Your task to perform on an android device: turn off smart reply in the gmail app Image 0: 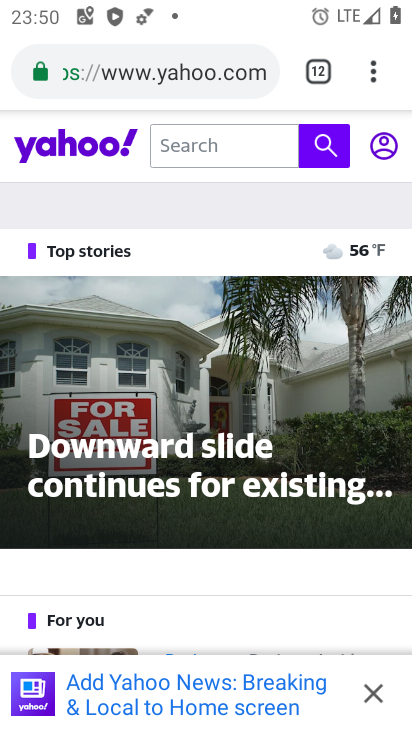
Step 0: press home button
Your task to perform on an android device: turn off smart reply in the gmail app Image 1: 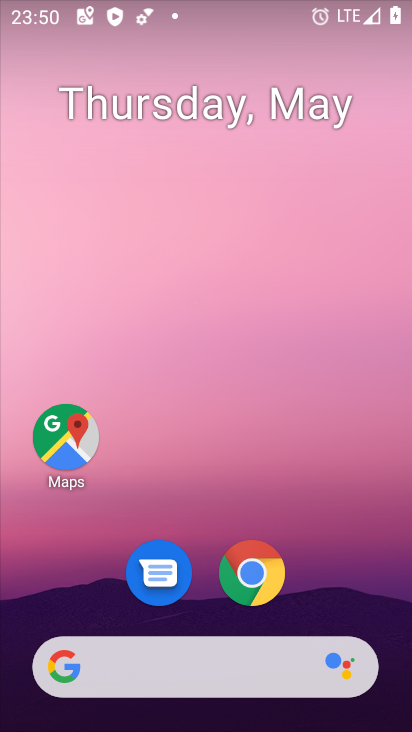
Step 1: drag from (220, 616) to (194, 237)
Your task to perform on an android device: turn off smart reply in the gmail app Image 2: 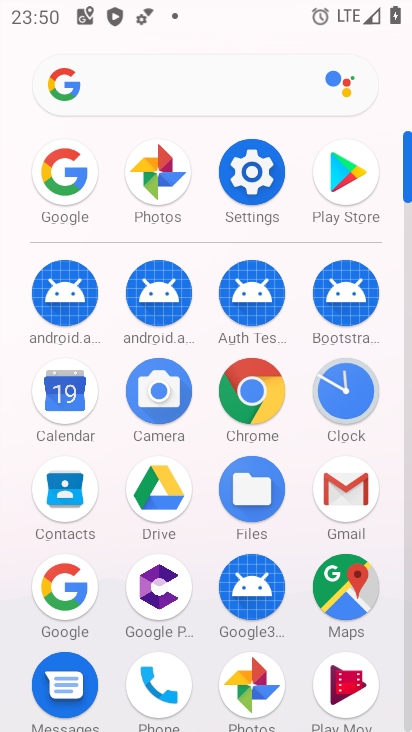
Step 2: click (358, 475)
Your task to perform on an android device: turn off smart reply in the gmail app Image 3: 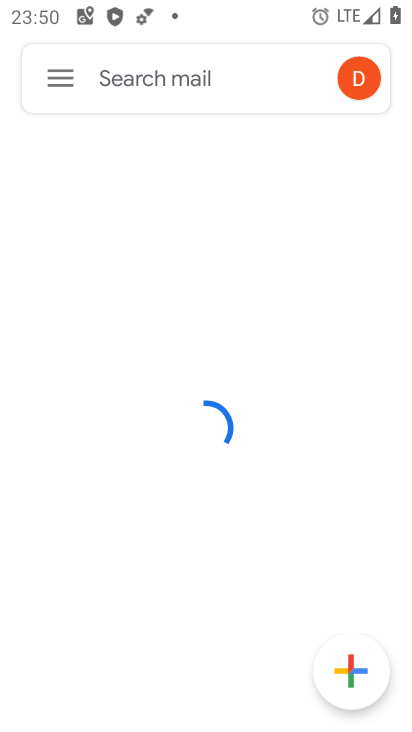
Step 3: click (56, 82)
Your task to perform on an android device: turn off smart reply in the gmail app Image 4: 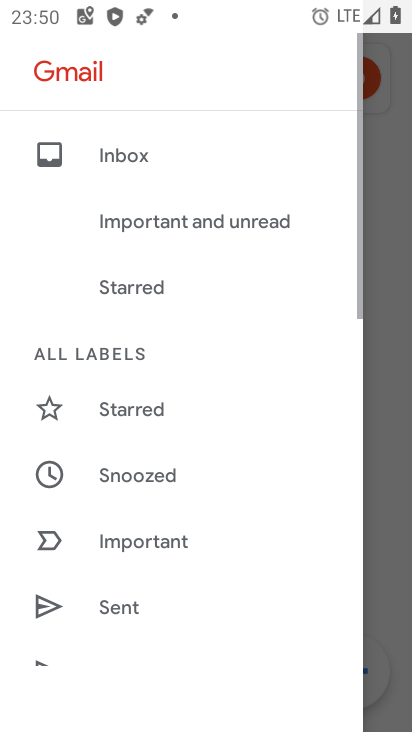
Step 4: drag from (165, 581) to (150, 255)
Your task to perform on an android device: turn off smart reply in the gmail app Image 5: 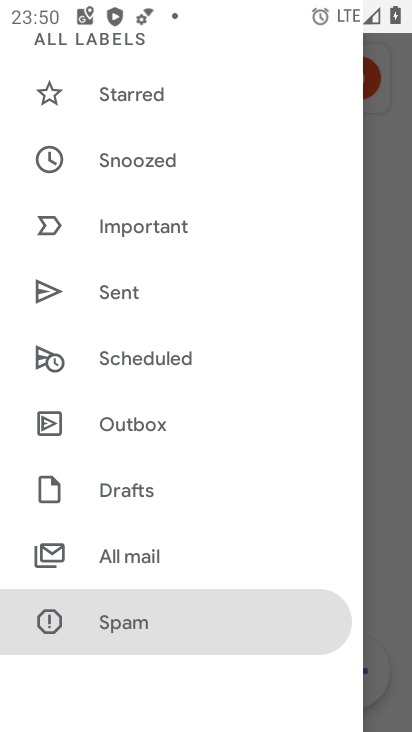
Step 5: drag from (177, 566) to (198, 269)
Your task to perform on an android device: turn off smart reply in the gmail app Image 6: 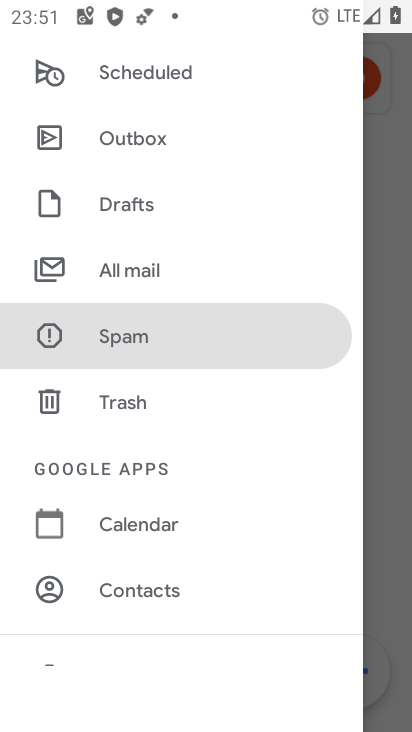
Step 6: drag from (152, 571) to (169, 275)
Your task to perform on an android device: turn off smart reply in the gmail app Image 7: 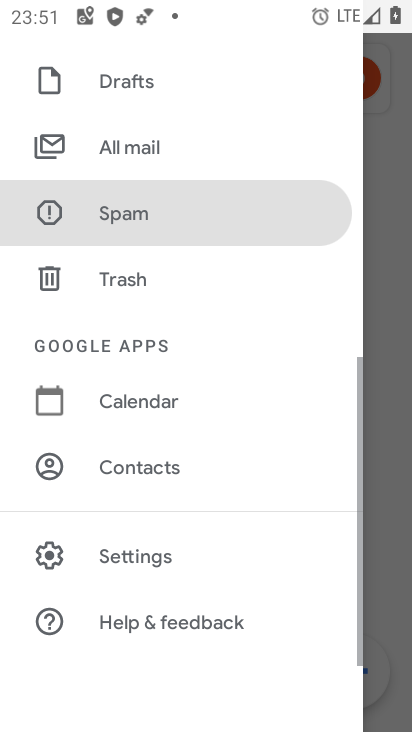
Step 7: click (146, 544)
Your task to perform on an android device: turn off smart reply in the gmail app Image 8: 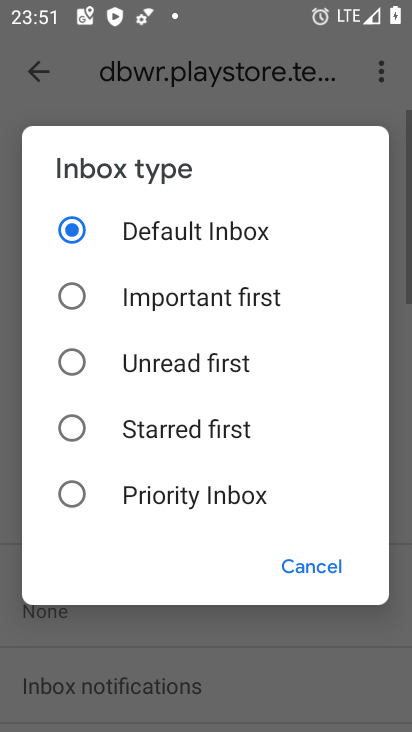
Step 8: click (284, 559)
Your task to perform on an android device: turn off smart reply in the gmail app Image 9: 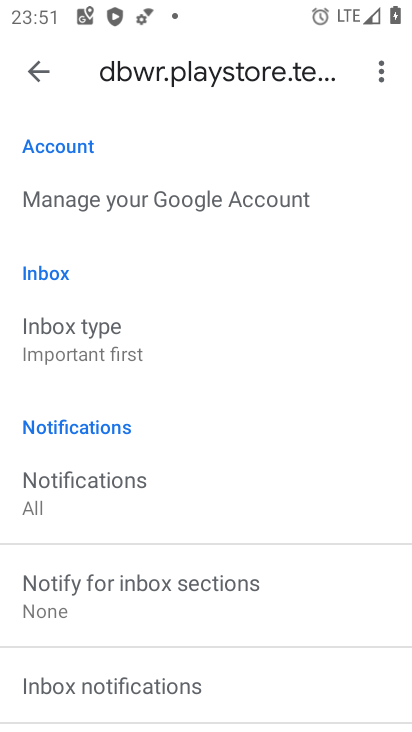
Step 9: drag from (221, 525) to (219, 200)
Your task to perform on an android device: turn off smart reply in the gmail app Image 10: 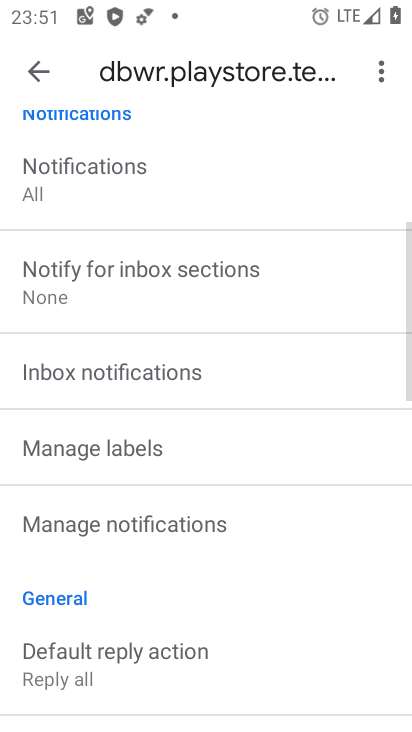
Step 10: drag from (205, 574) to (210, 258)
Your task to perform on an android device: turn off smart reply in the gmail app Image 11: 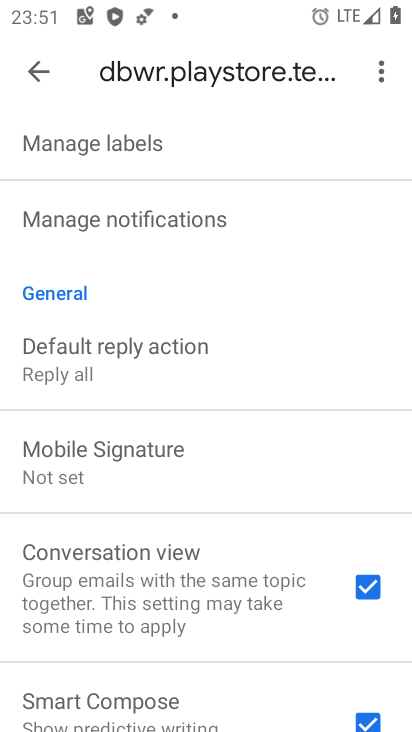
Step 11: drag from (201, 606) to (203, 290)
Your task to perform on an android device: turn off smart reply in the gmail app Image 12: 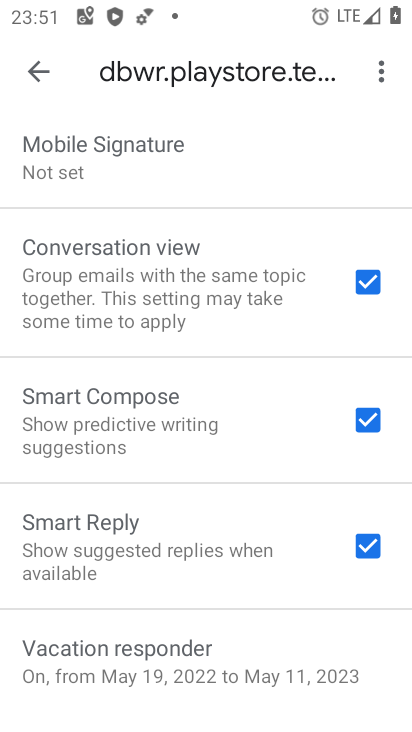
Step 12: click (366, 548)
Your task to perform on an android device: turn off smart reply in the gmail app Image 13: 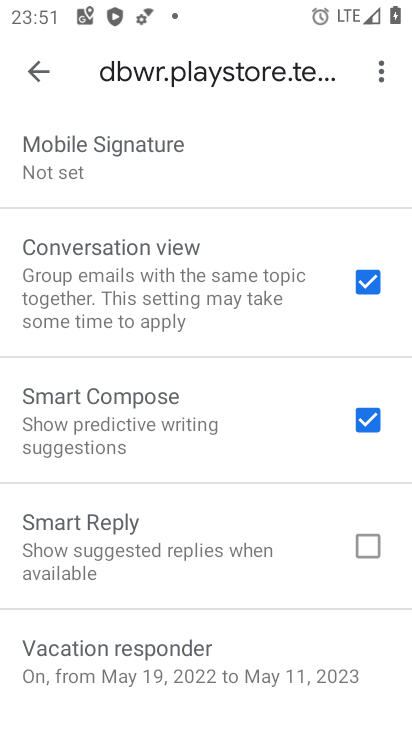
Step 13: task complete